Your task to perform on an android device: Open Chrome and go to the settings page Image 0: 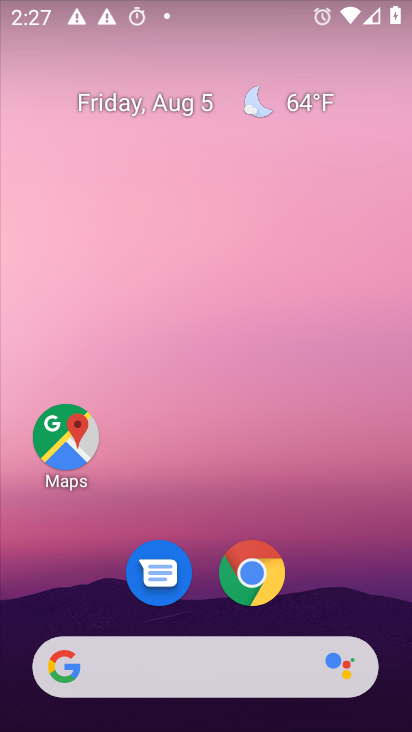
Step 0: press home button
Your task to perform on an android device: Open Chrome and go to the settings page Image 1: 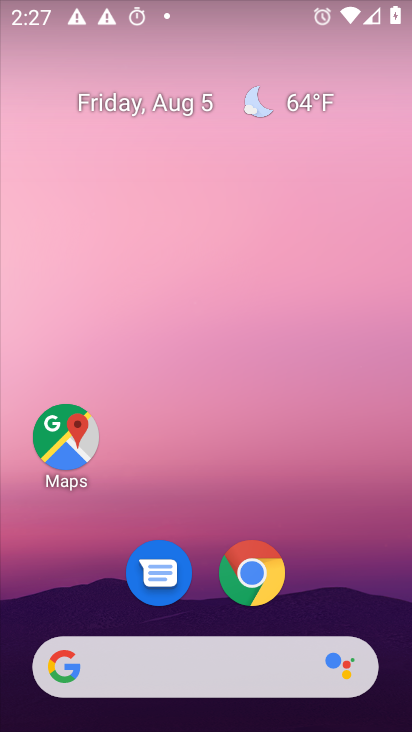
Step 1: drag from (343, 595) to (335, 170)
Your task to perform on an android device: Open Chrome and go to the settings page Image 2: 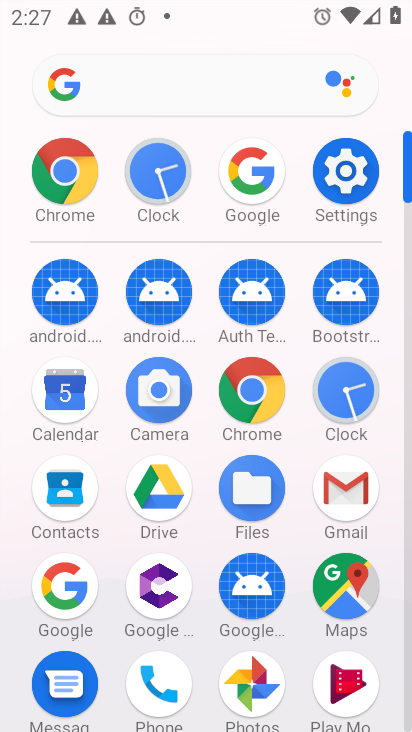
Step 2: click (256, 396)
Your task to perform on an android device: Open Chrome and go to the settings page Image 3: 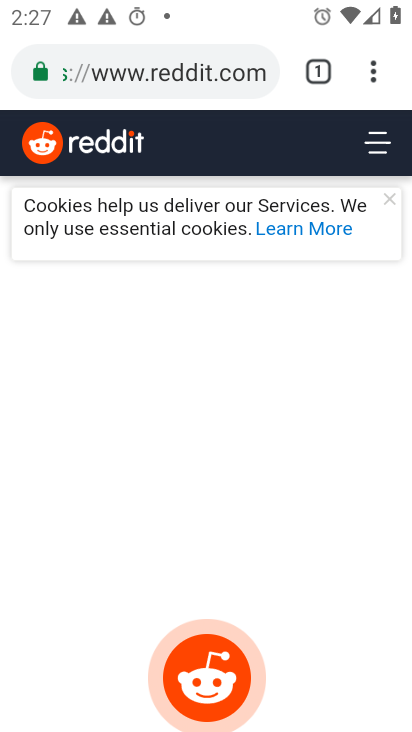
Step 3: click (372, 74)
Your task to perform on an android device: Open Chrome and go to the settings page Image 4: 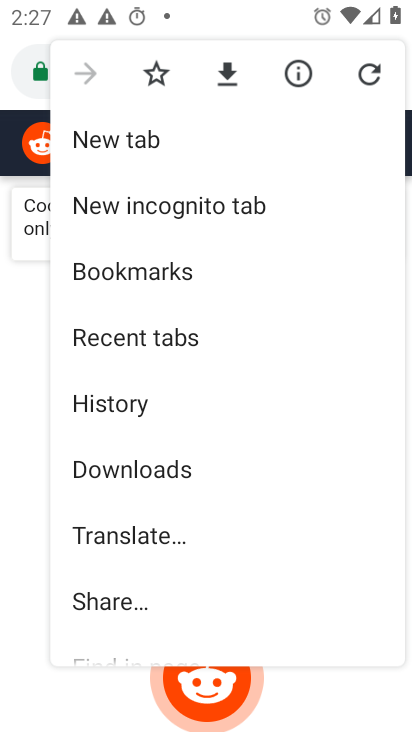
Step 4: drag from (285, 413) to (300, 275)
Your task to perform on an android device: Open Chrome and go to the settings page Image 5: 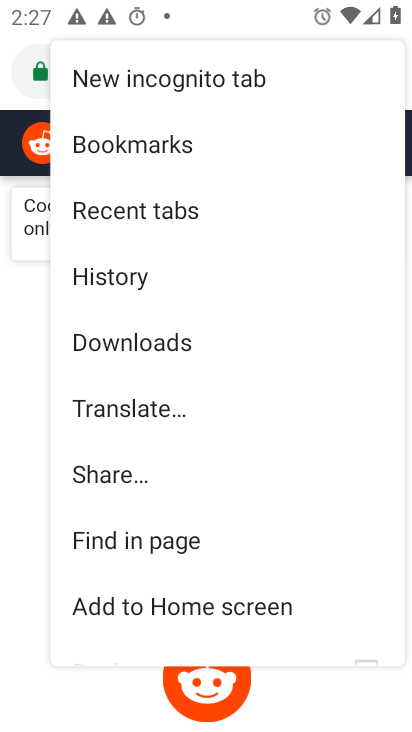
Step 5: drag from (261, 438) to (283, 305)
Your task to perform on an android device: Open Chrome and go to the settings page Image 6: 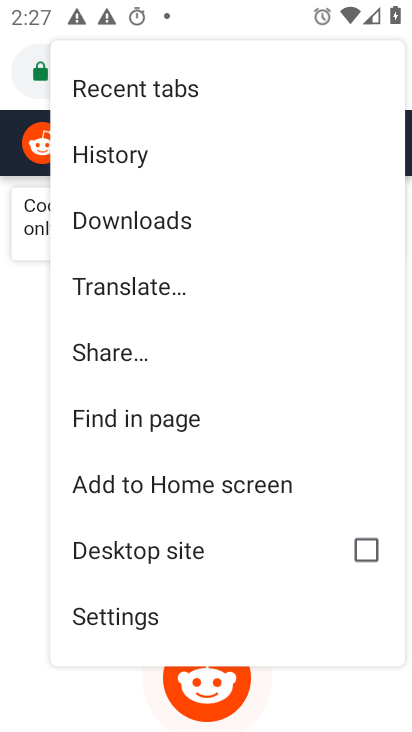
Step 6: drag from (282, 529) to (300, 395)
Your task to perform on an android device: Open Chrome and go to the settings page Image 7: 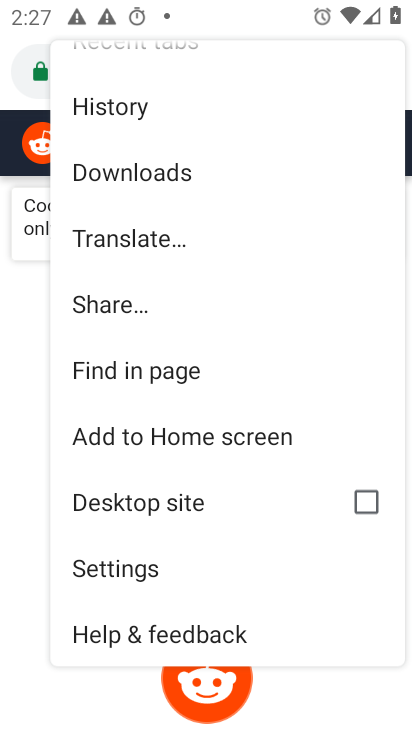
Step 7: click (194, 569)
Your task to perform on an android device: Open Chrome and go to the settings page Image 8: 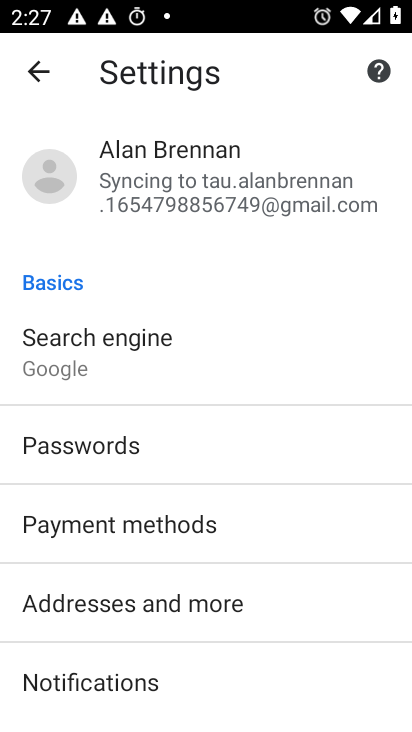
Step 8: task complete